Your task to perform on an android device: Play the last video I watched on Youtube Image 0: 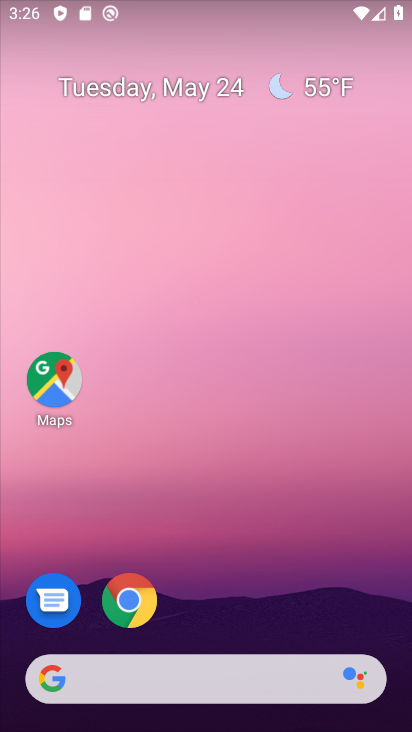
Step 0: drag from (209, 669) to (205, 42)
Your task to perform on an android device: Play the last video I watched on Youtube Image 1: 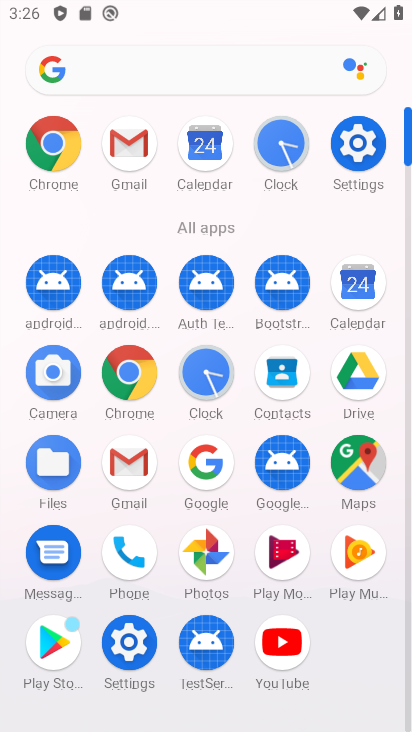
Step 1: click (296, 646)
Your task to perform on an android device: Play the last video I watched on Youtube Image 2: 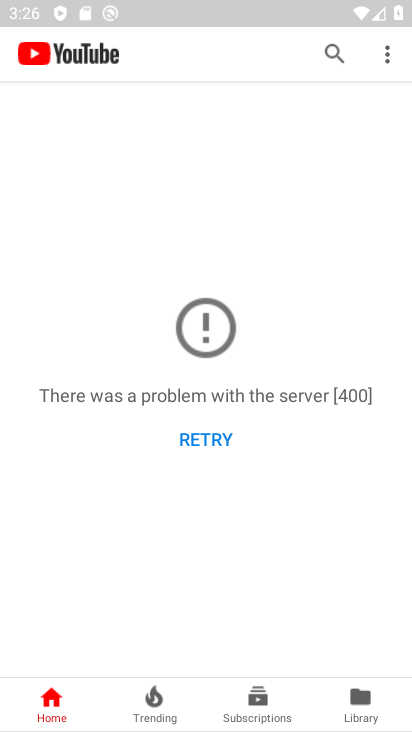
Step 2: click (368, 713)
Your task to perform on an android device: Play the last video I watched on Youtube Image 3: 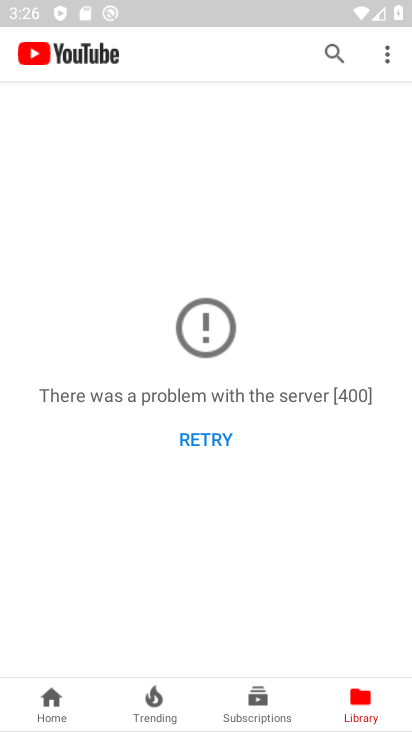
Step 3: task complete